Your task to perform on an android device: turn on priority inbox in the gmail app Image 0: 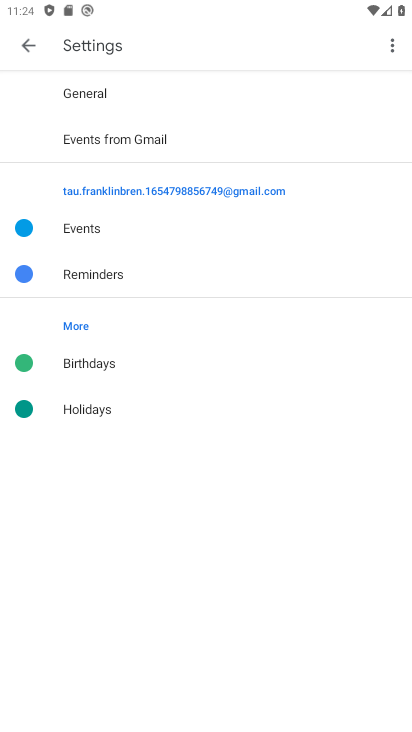
Step 0: press home button
Your task to perform on an android device: turn on priority inbox in the gmail app Image 1: 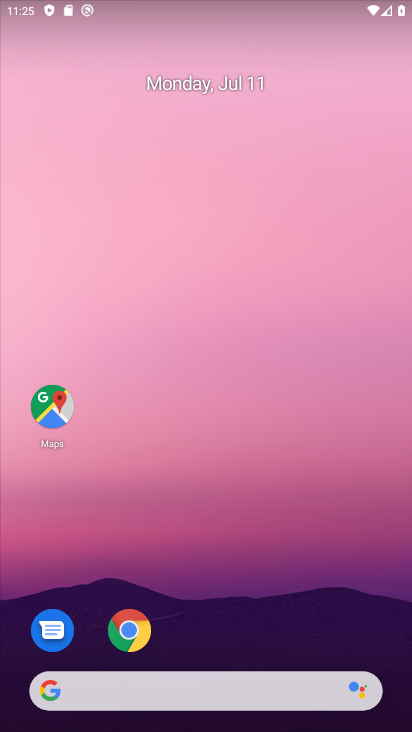
Step 1: drag from (224, 684) to (257, 109)
Your task to perform on an android device: turn on priority inbox in the gmail app Image 2: 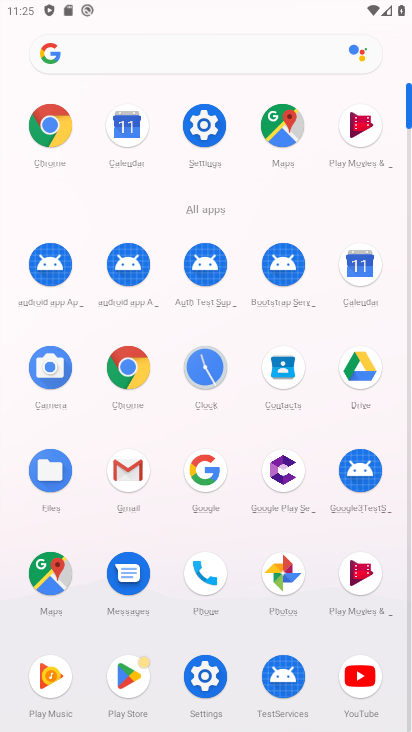
Step 2: click (127, 467)
Your task to perform on an android device: turn on priority inbox in the gmail app Image 3: 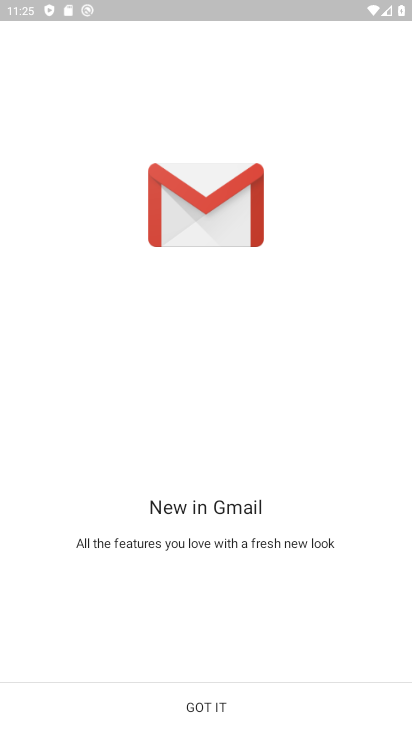
Step 3: click (212, 705)
Your task to perform on an android device: turn on priority inbox in the gmail app Image 4: 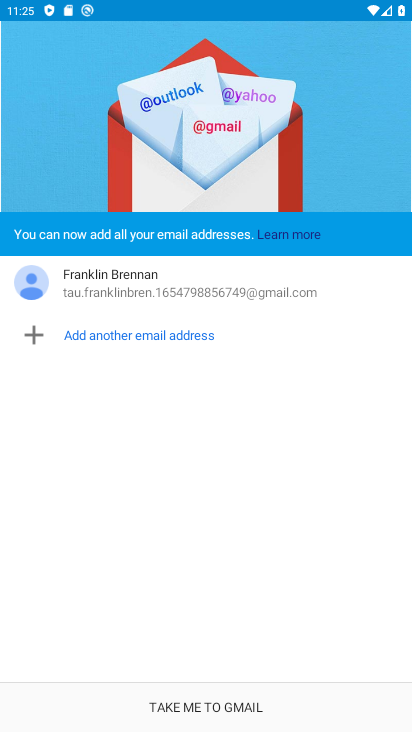
Step 4: click (212, 705)
Your task to perform on an android device: turn on priority inbox in the gmail app Image 5: 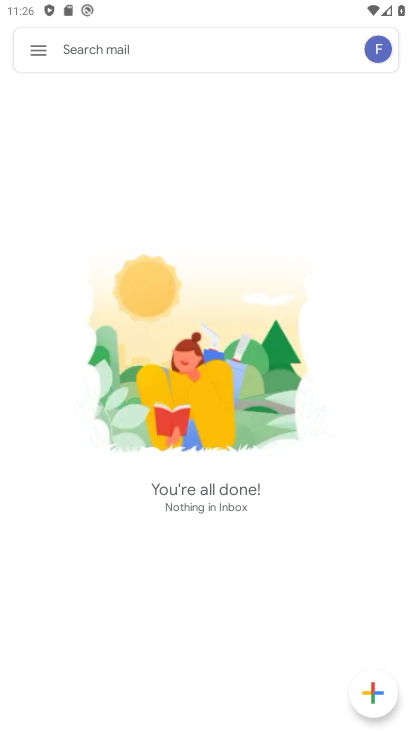
Step 5: click (41, 52)
Your task to perform on an android device: turn on priority inbox in the gmail app Image 6: 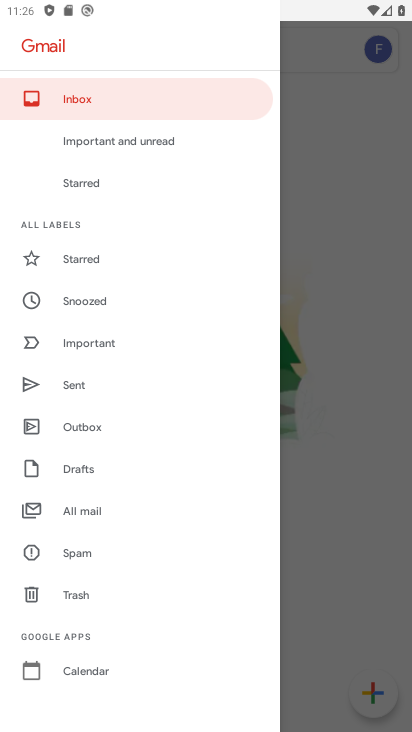
Step 6: drag from (69, 569) to (104, 423)
Your task to perform on an android device: turn on priority inbox in the gmail app Image 7: 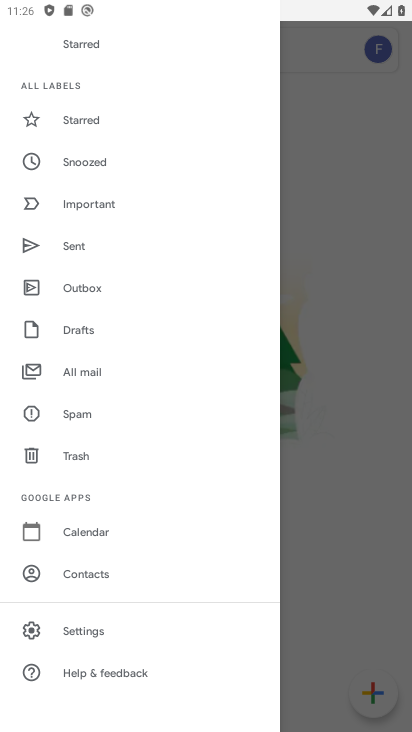
Step 7: click (88, 624)
Your task to perform on an android device: turn on priority inbox in the gmail app Image 8: 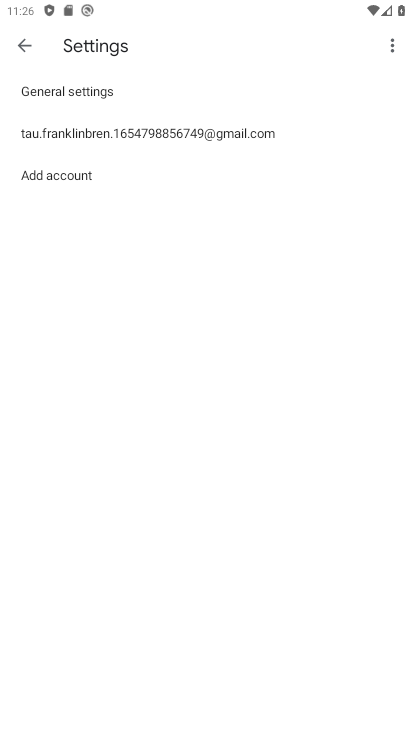
Step 8: click (128, 133)
Your task to perform on an android device: turn on priority inbox in the gmail app Image 9: 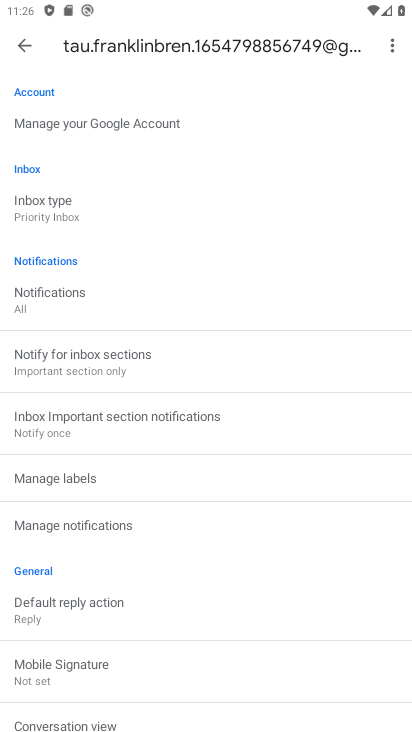
Step 9: click (60, 201)
Your task to perform on an android device: turn on priority inbox in the gmail app Image 10: 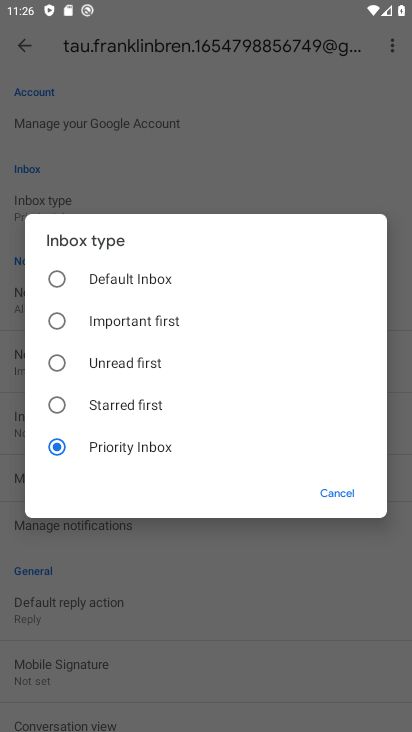
Step 10: click (56, 443)
Your task to perform on an android device: turn on priority inbox in the gmail app Image 11: 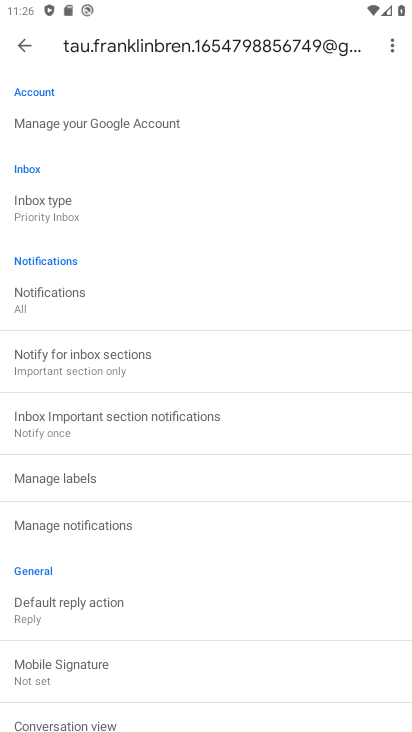
Step 11: task complete